Your task to perform on an android device: Open the map Image 0: 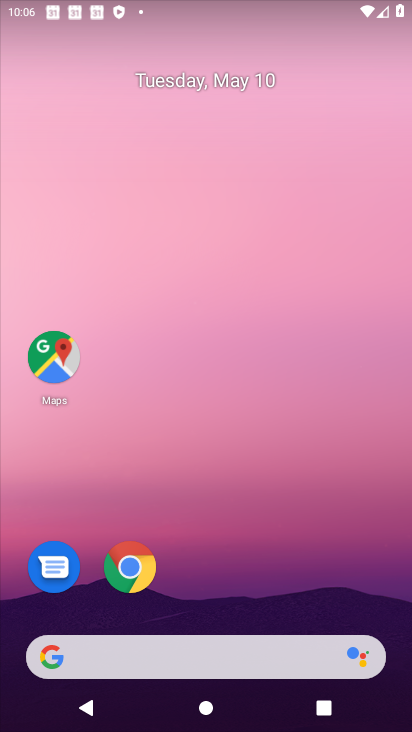
Step 0: drag from (218, 617) to (155, 191)
Your task to perform on an android device: Open the map Image 1: 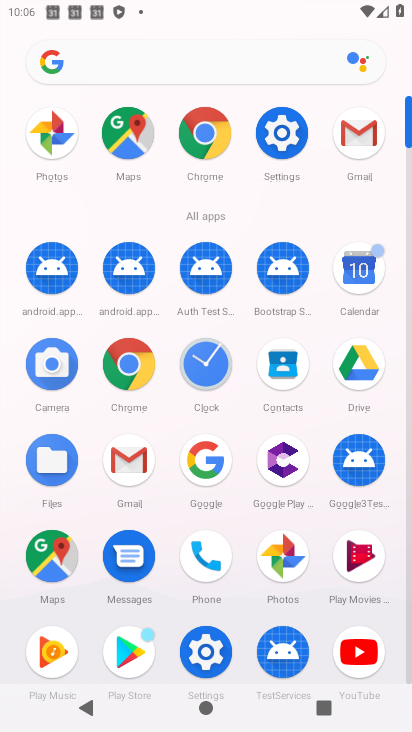
Step 1: click (204, 409)
Your task to perform on an android device: Open the map Image 2: 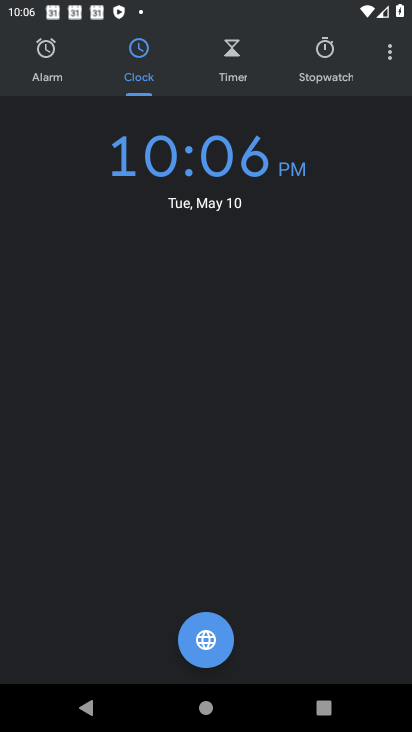
Step 2: press home button
Your task to perform on an android device: Open the map Image 3: 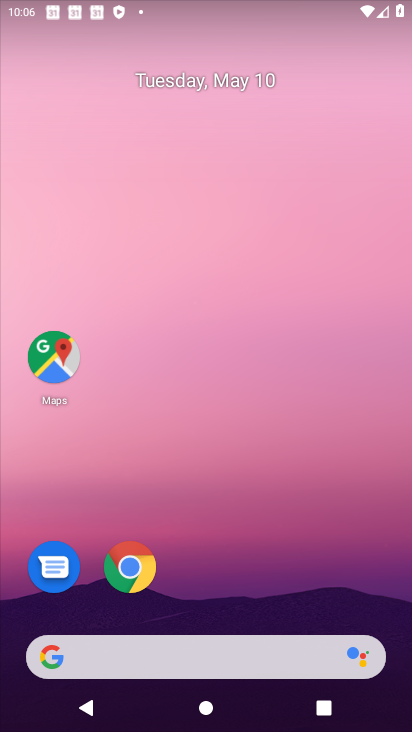
Step 3: click (218, 175)
Your task to perform on an android device: Open the map Image 4: 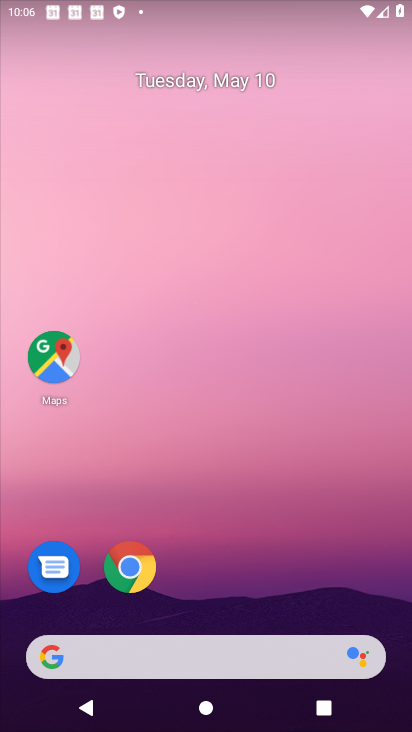
Step 4: drag from (290, 642) to (281, 29)
Your task to perform on an android device: Open the map Image 5: 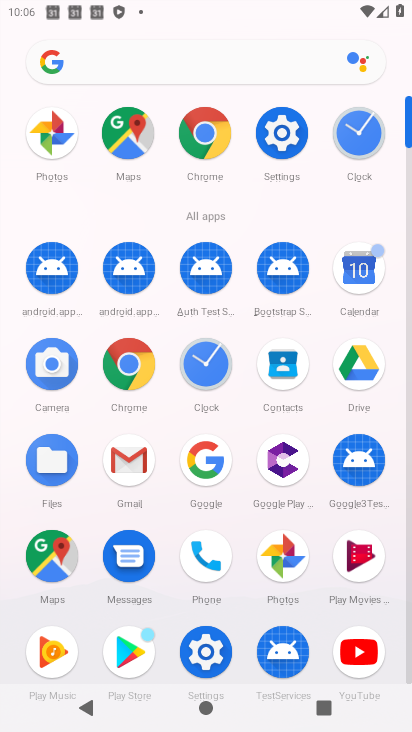
Step 5: click (55, 587)
Your task to perform on an android device: Open the map Image 6: 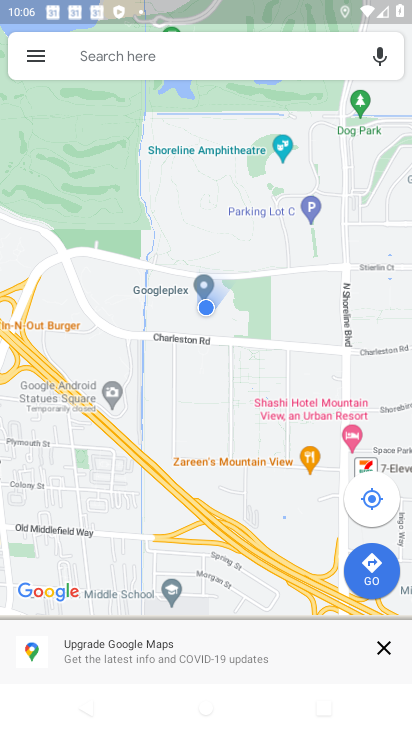
Step 6: task complete